Your task to perform on an android device: Open the calendar and show me this week's events? Image 0: 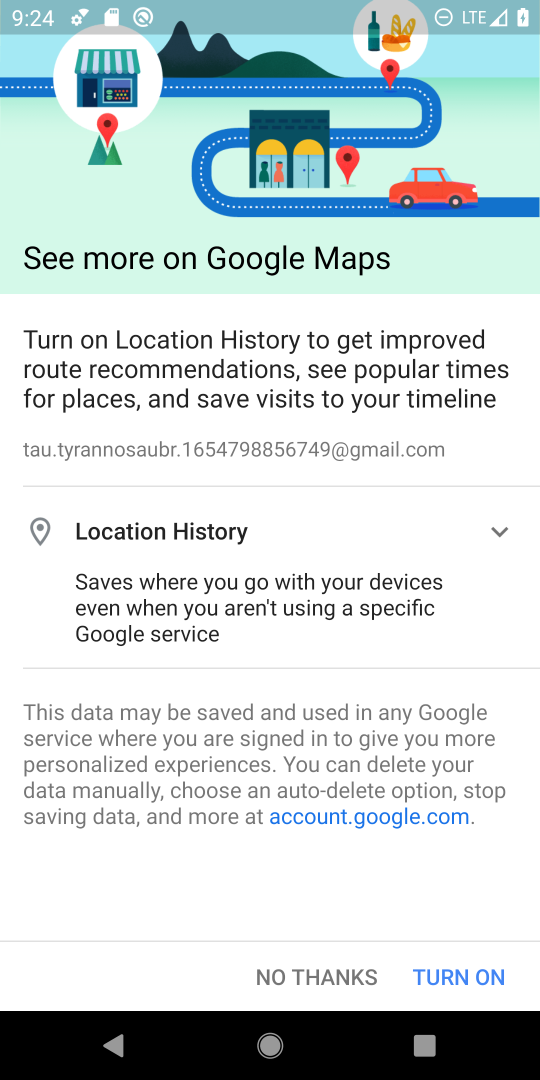
Step 0: click (330, 986)
Your task to perform on an android device: Open the calendar and show me this week's events? Image 1: 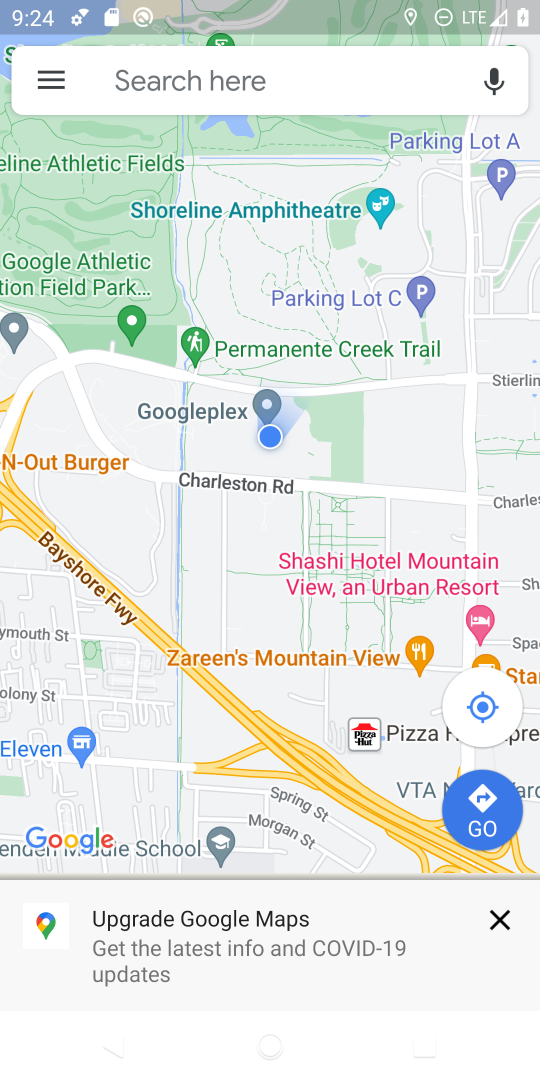
Step 1: click (278, 1047)
Your task to perform on an android device: Open the calendar and show me this week's events? Image 2: 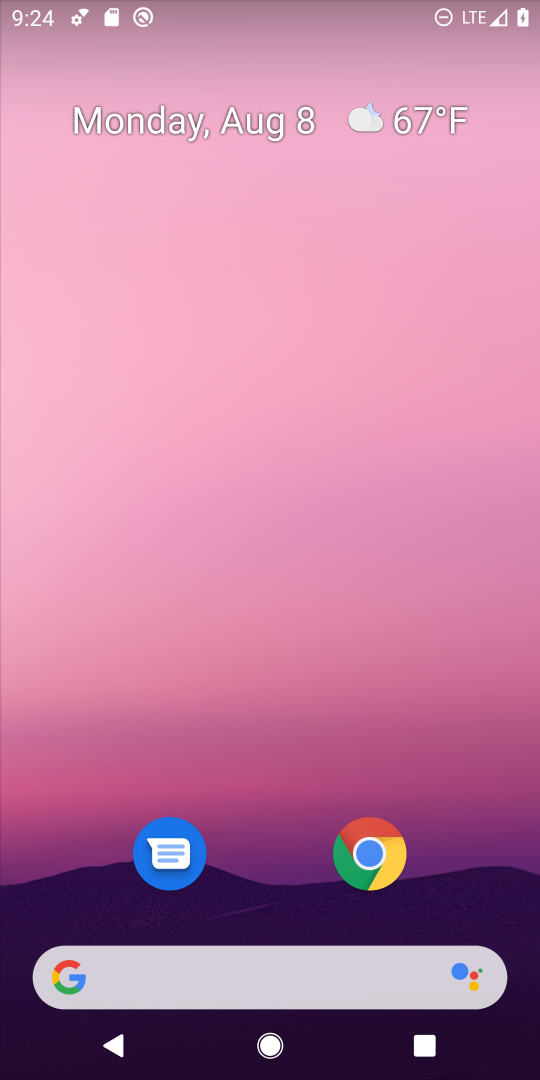
Step 2: drag from (253, 849) to (379, 43)
Your task to perform on an android device: Open the calendar and show me this week's events? Image 3: 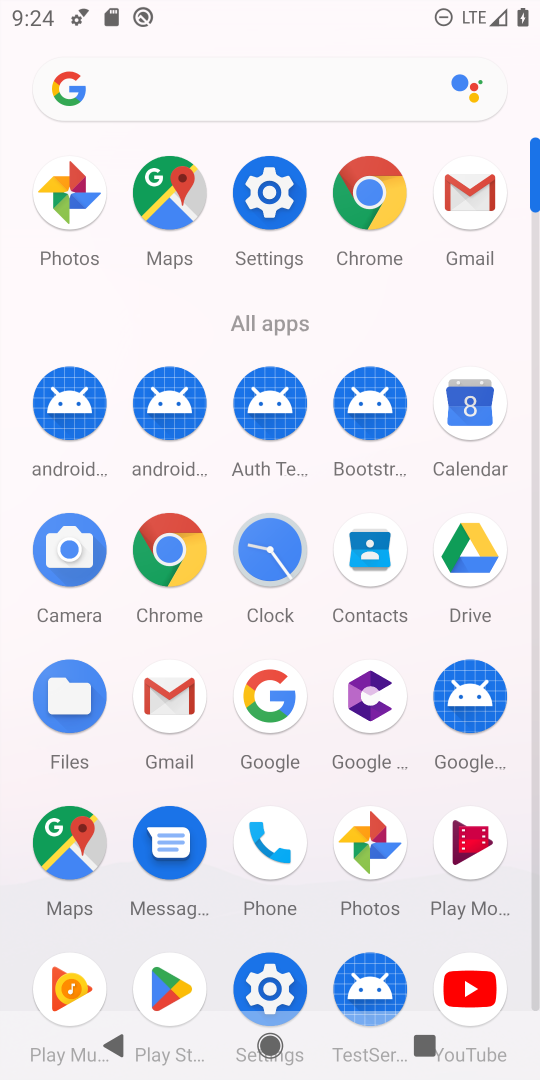
Step 3: click (479, 398)
Your task to perform on an android device: Open the calendar and show me this week's events? Image 4: 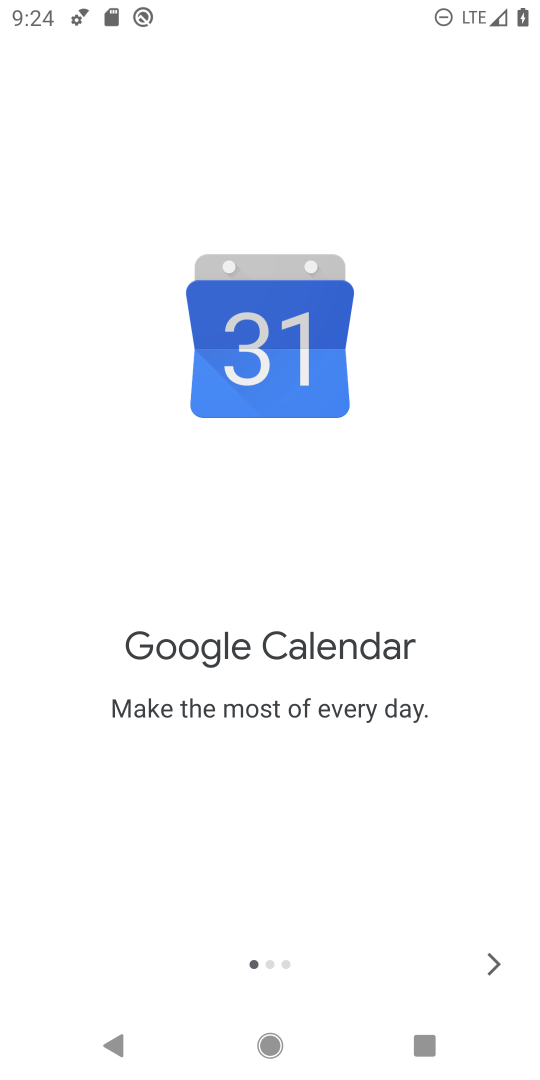
Step 4: click (493, 951)
Your task to perform on an android device: Open the calendar and show me this week's events? Image 5: 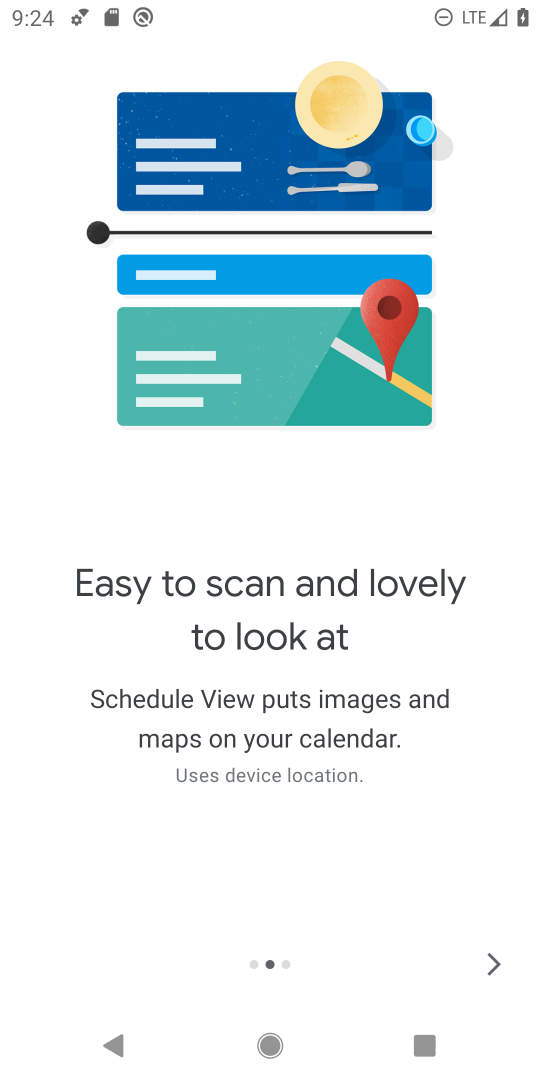
Step 5: click (493, 951)
Your task to perform on an android device: Open the calendar and show me this week's events? Image 6: 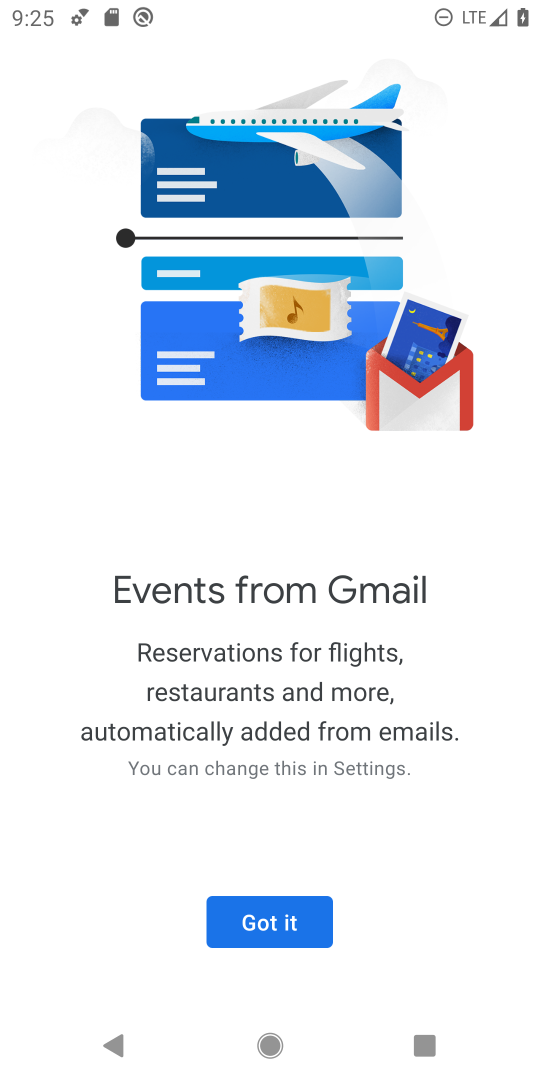
Step 6: click (233, 906)
Your task to perform on an android device: Open the calendar and show me this week's events? Image 7: 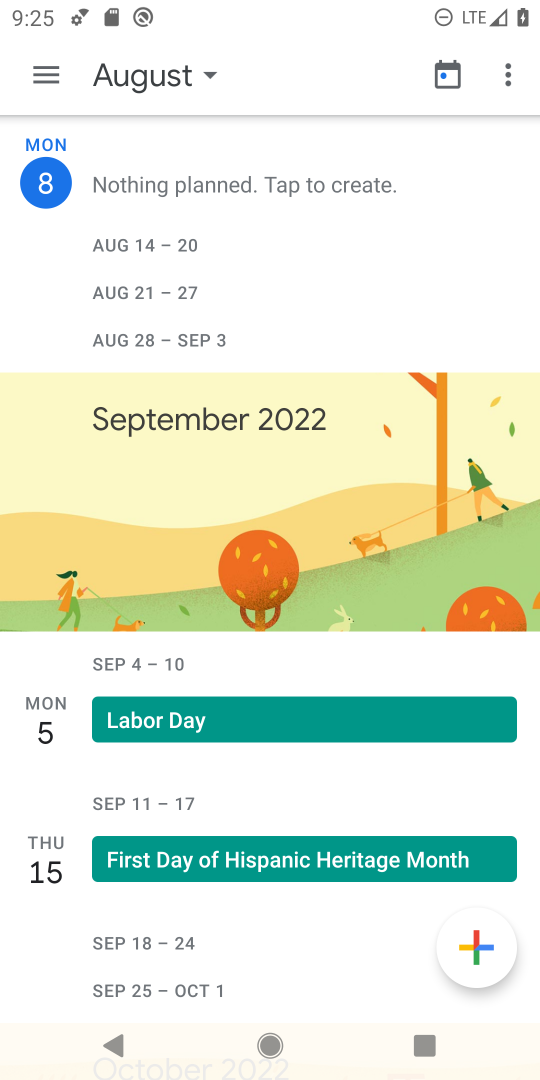
Step 7: click (110, 237)
Your task to perform on an android device: Open the calendar and show me this week's events? Image 8: 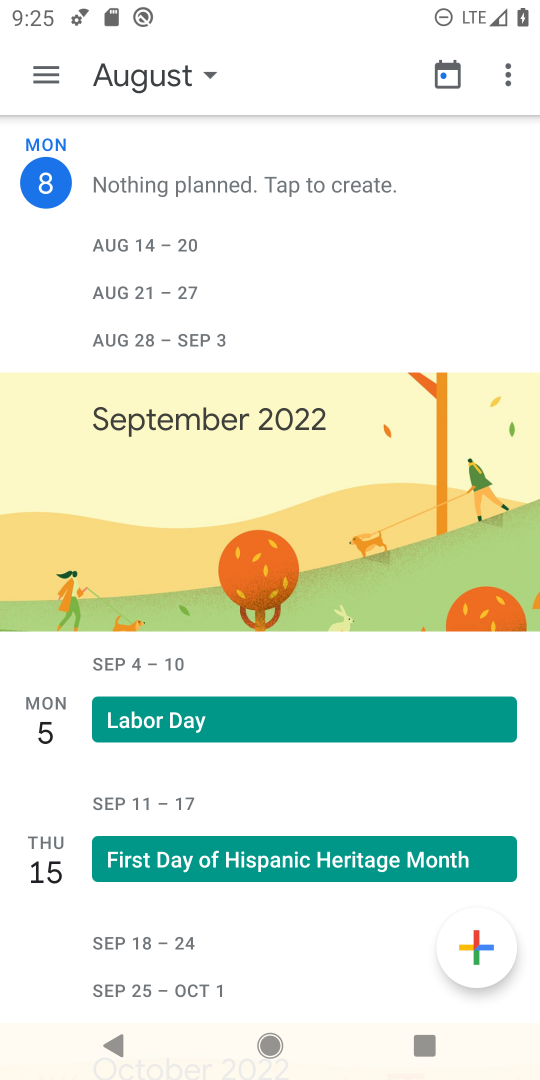
Step 8: click (110, 237)
Your task to perform on an android device: Open the calendar and show me this week's events? Image 9: 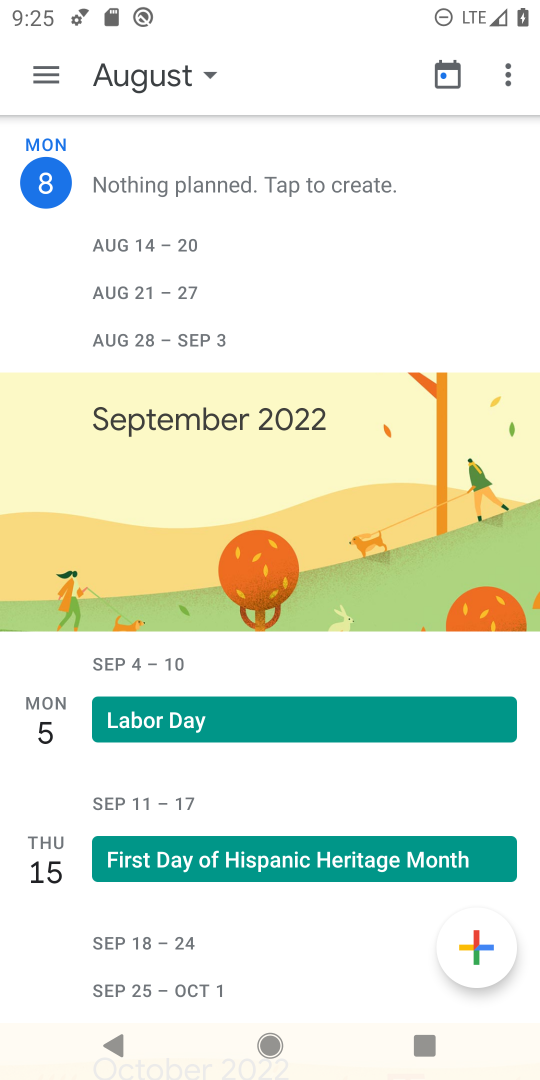
Step 9: click (46, 79)
Your task to perform on an android device: Open the calendar and show me this week's events? Image 10: 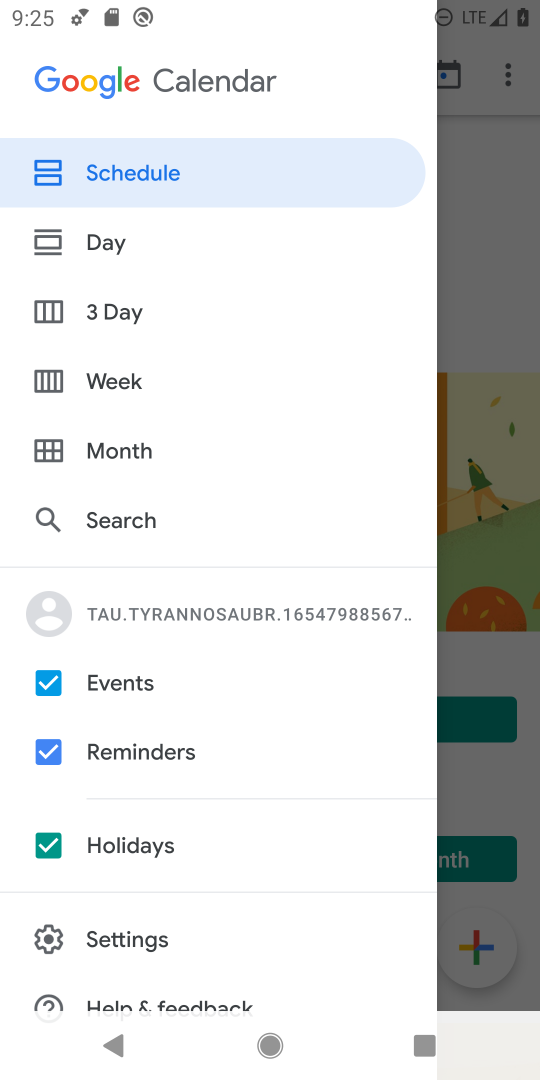
Step 10: click (113, 393)
Your task to perform on an android device: Open the calendar and show me this week's events? Image 11: 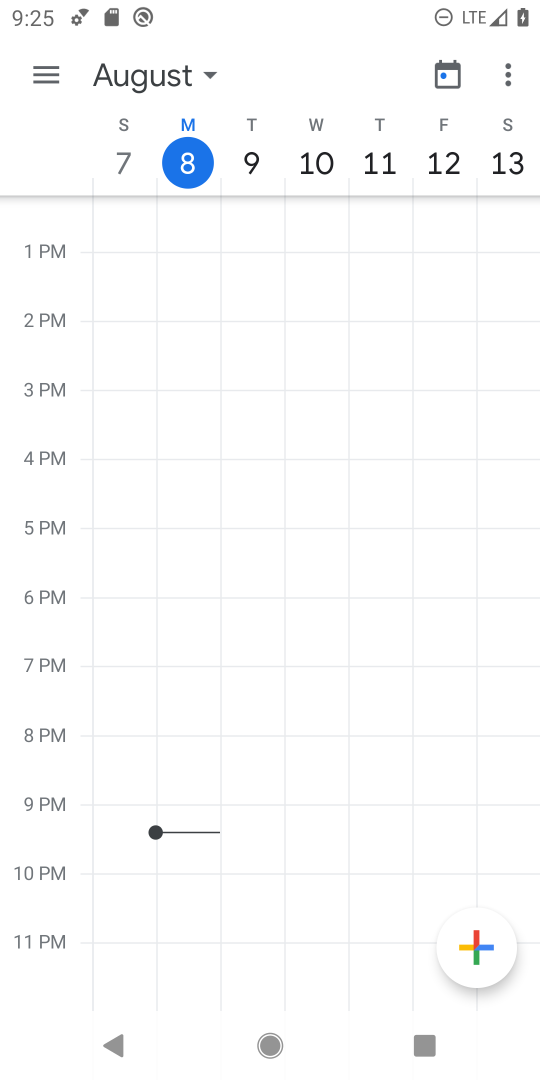
Step 11: click (50, 61)
Your task to perform on an android device: Open the calendar and show me this week's events? Image 12: 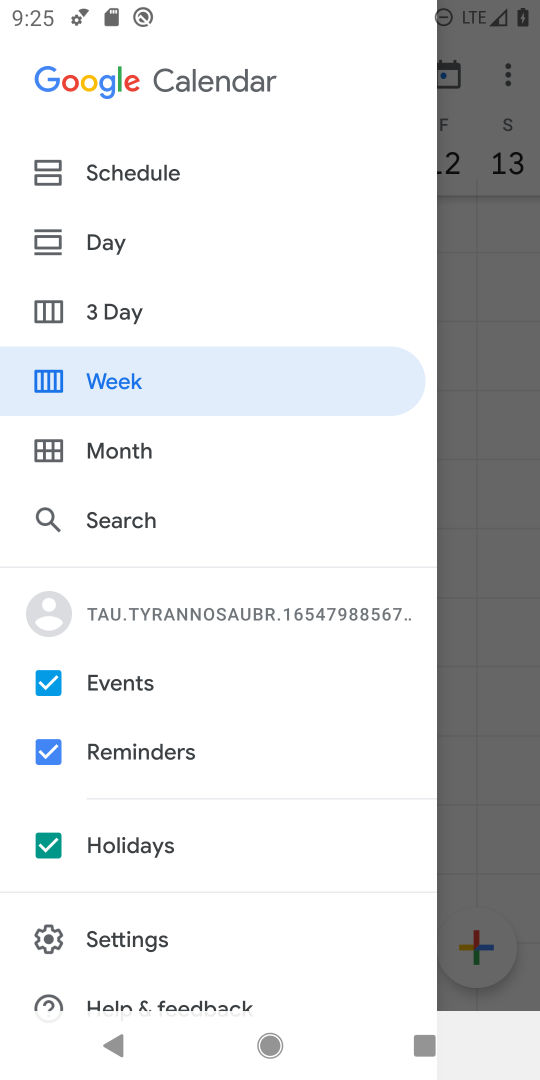
Step 12: click (61, 753)
Your task to perform on an android device: Open the calendar and show me this week's events? Image 13: 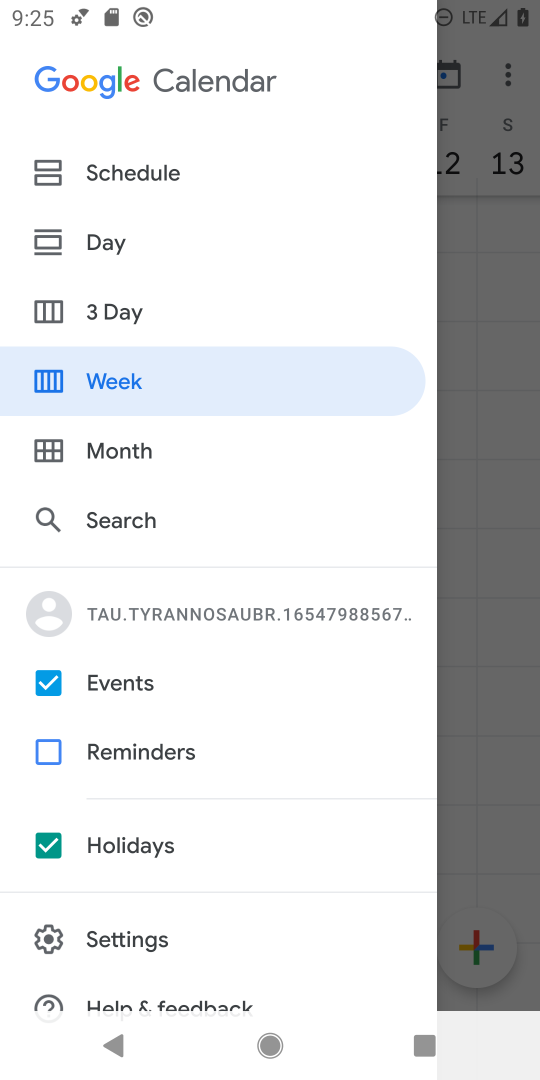
Step 13: click (58, 844)
Your task to perform on an android device: Open the calendar and show me this week's events? Image 14: 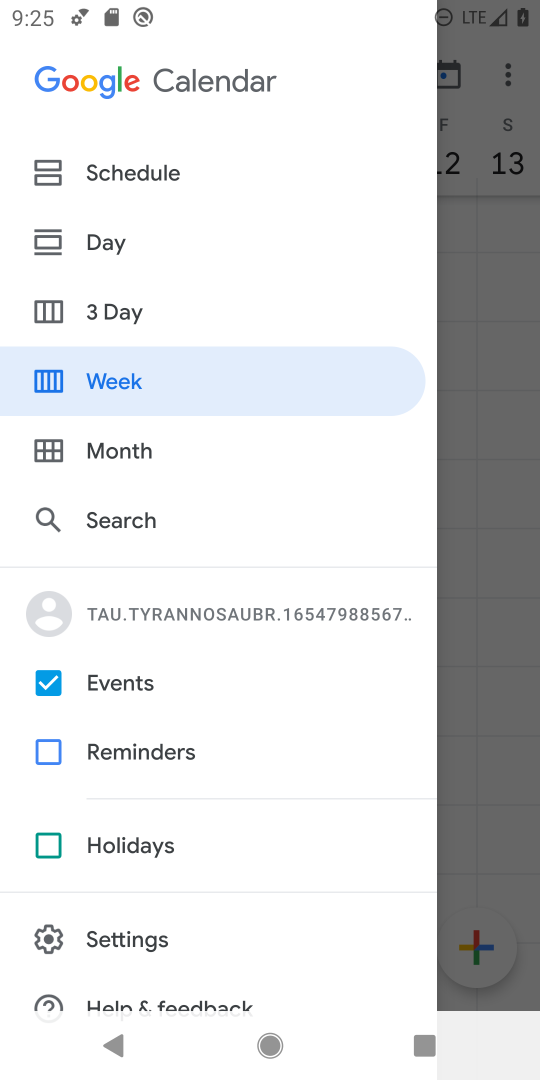
Step 14: click (507, 633)
Your task to perform on an android device: Open the calendar and show me this week's events? Image 15: 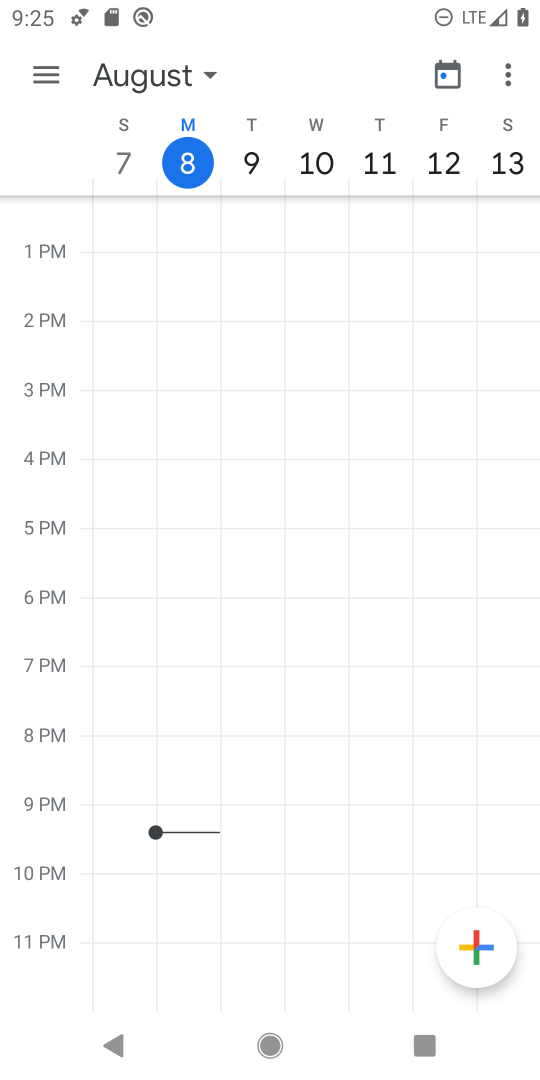
Step 15: task complete